Your task to perform on an android device: toggle translation in the chrome app Image 0: 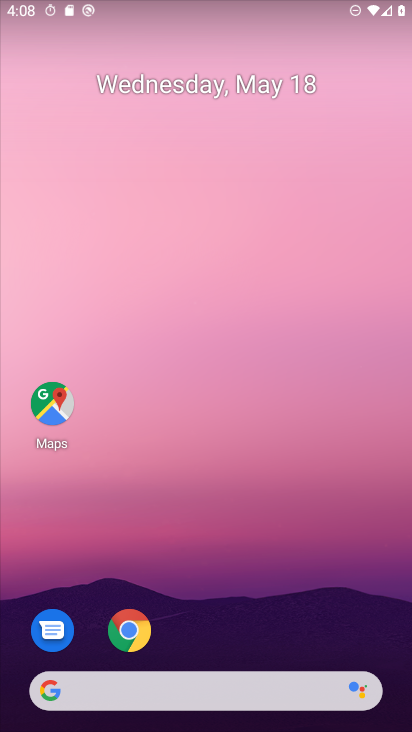
Step 0: click (128, 623)
Your task to perform on an android device: toggle translation in the chrome app Image 1: 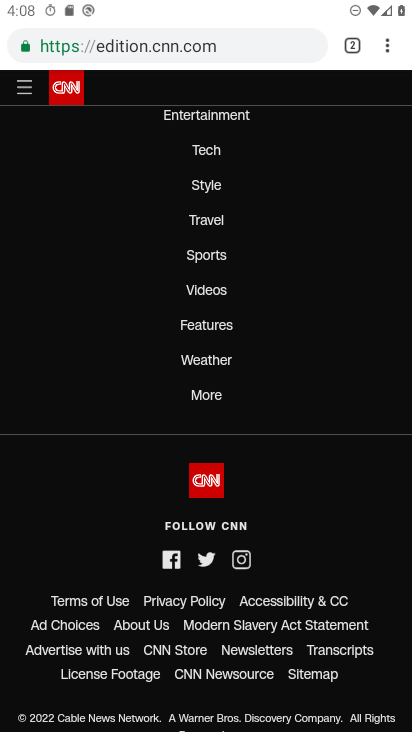
Step 1: click (391, 36)
Your task to perform on an android device: toggle translation in the chrome app Image 2: 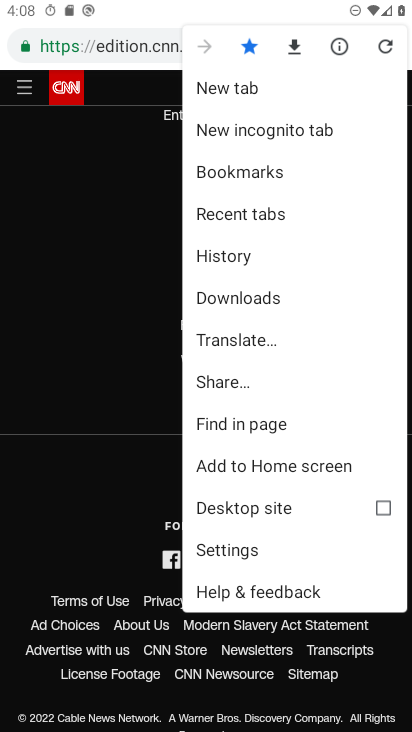
Step 2: click (268, 546)
Your task to perform on an android device: toggle translation in the chrome app Image 3: 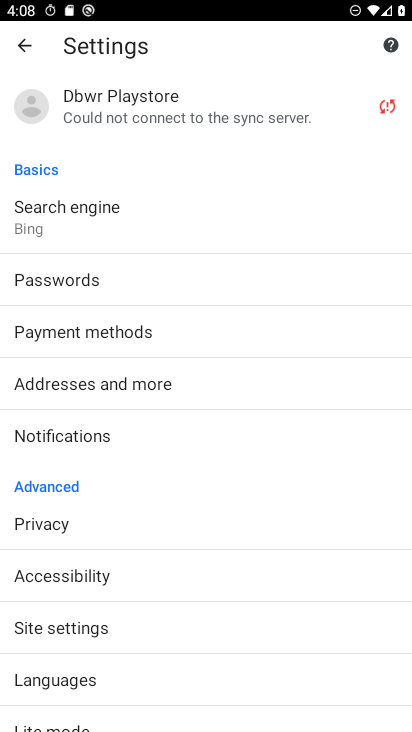
Step 3: click (106, 672)
Your task to perform on an android device: toggle translation in the chrome app Image 4: 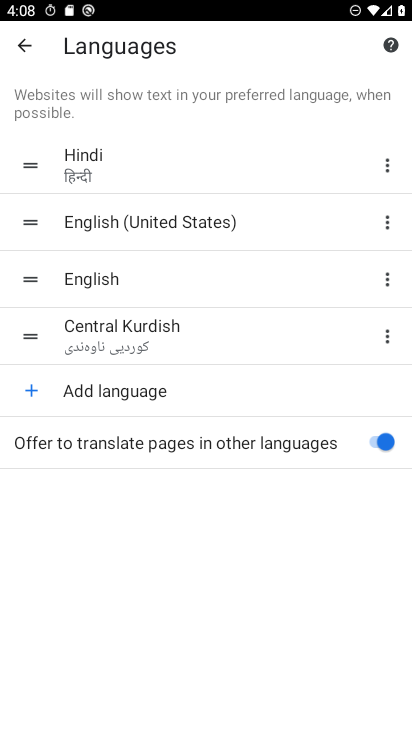
Step 4: click (378, 438)
Your task to perform on an android device: toggle translation in the chrome app Image 5: 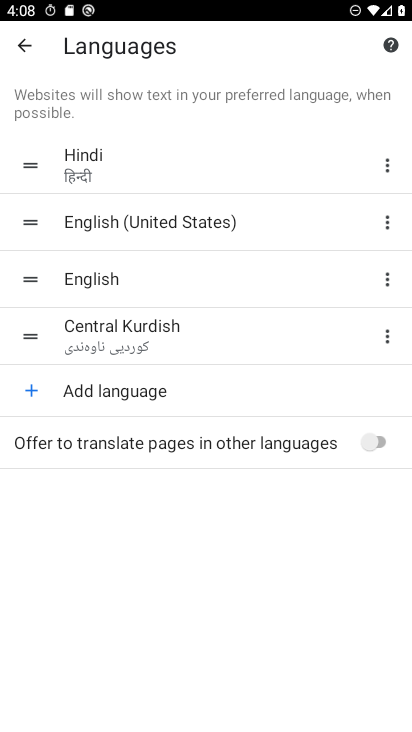
Step 5: task complete